Your task to perform on an android device: Open settings on Google Maps Image 0: 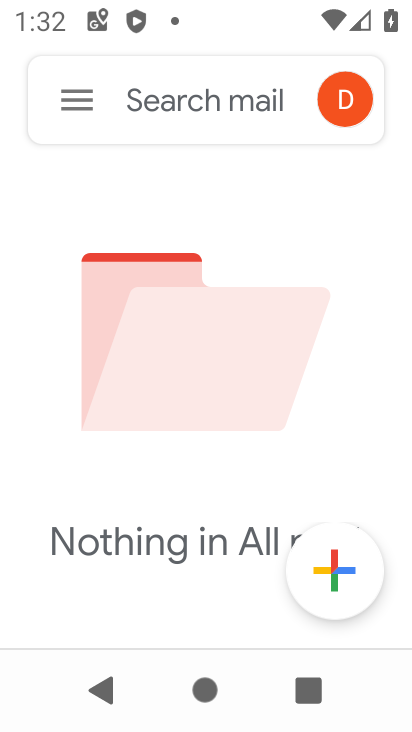
Step 0: press home button
Your task to perform on an android device: Open settings on Google Maps Image 1: 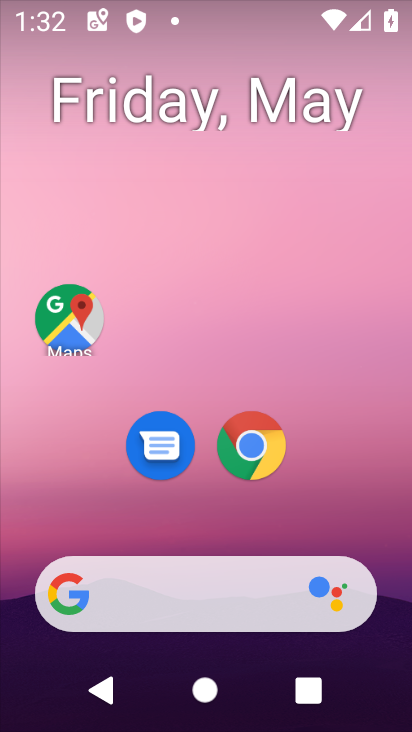
Step 1: click (70, 317)
Your task to perform on an android device: Open settings on Google Maps Image 2: 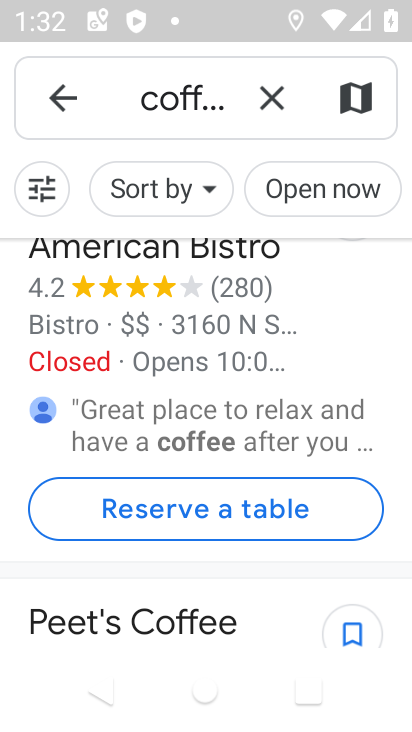
Step 2: click (264, 94)
Your task to perform on an android device: Open settings on Google Maps Image 3: 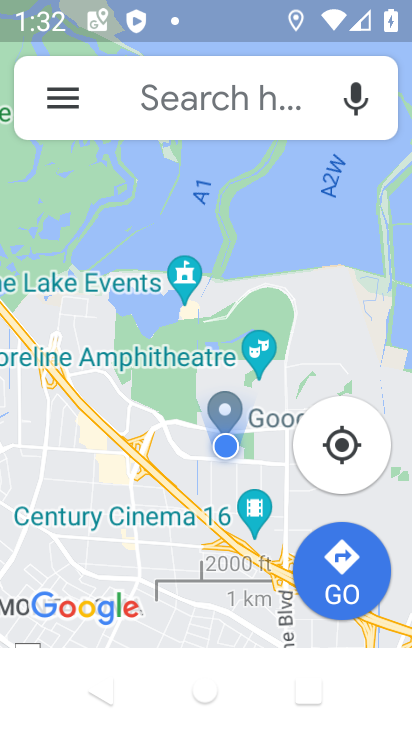
Step 3: click (57, 94)
Your task to perform on an android device: Open settings on Google Maps Image 4: 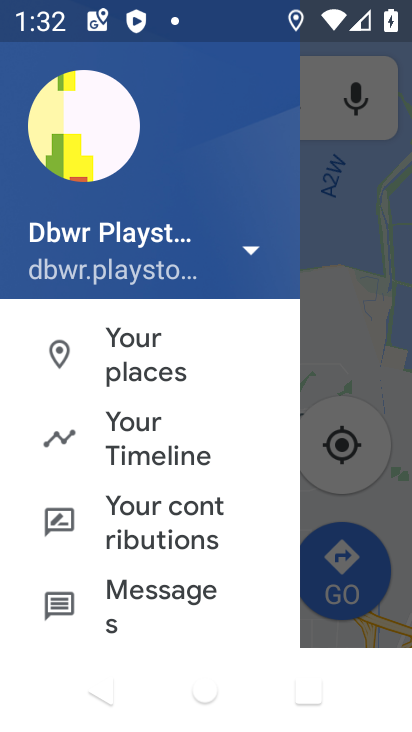
Step 4: drag from (264, 567) to (217, 145)
Your task to perform on an android device: Open settings on Google Maps Image 5: 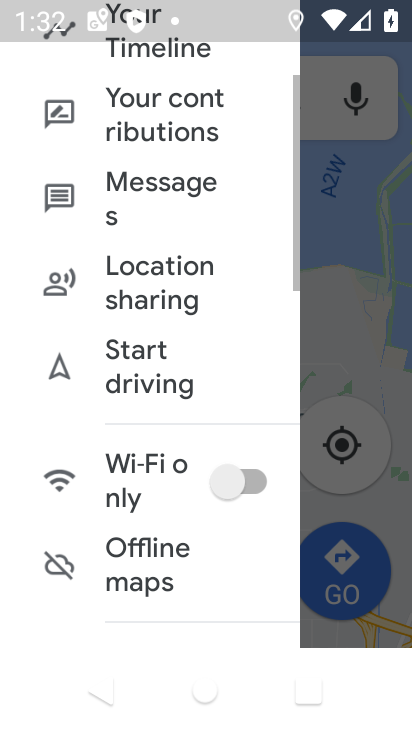
Step 5: drag from (212, 567) to (164, 235)
Your task to perform on an android device: Open settings on Google Maps Image 6: 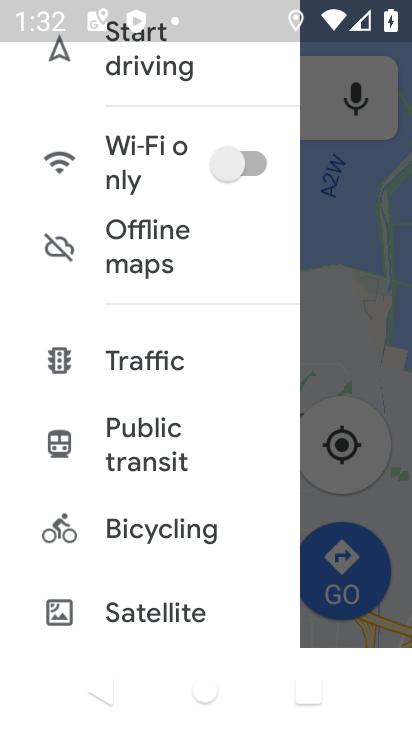
Step 6: drag from (209, 593) to (186, 254)
Your task to perform on an android device: Open settings on Google Maps Image 7: 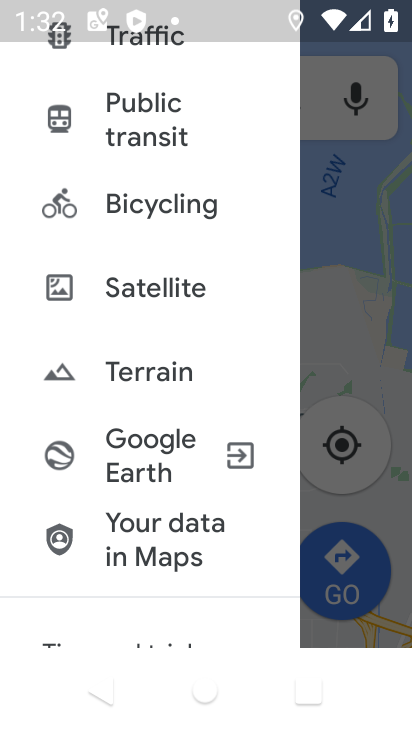
Step 7: drag from (231, 546) to (178, 140)
Your task to perform on an android device: Open settings on Google Maps Image 8: 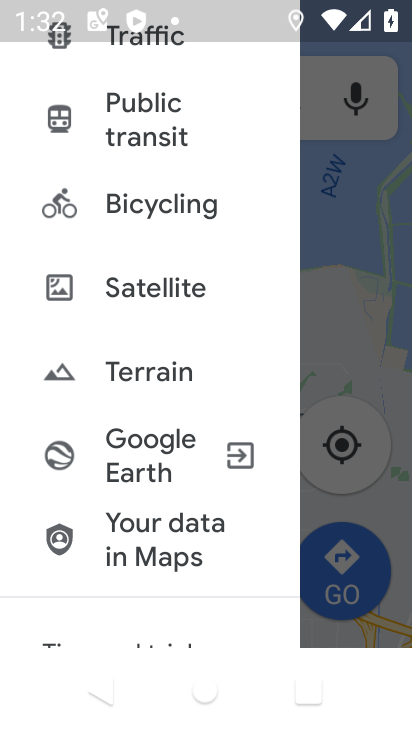
Step 8: drag from (206, 570) to (190, 95)
Your task to perform on an android device: Open settings on Google Maps Image 9: 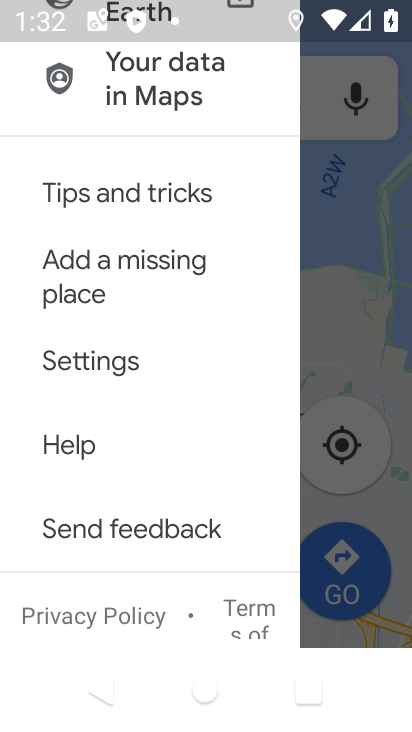
Step 9: click (88, 360)
Your task to perform on an android device: Open settings on Google Maps Image 10: 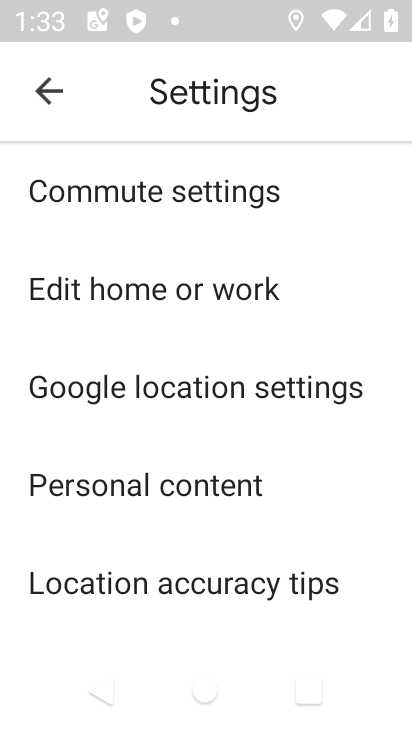
Step 10: task complete